Your task to perform on an android device: Do I have any events tomorrow? Image 0: 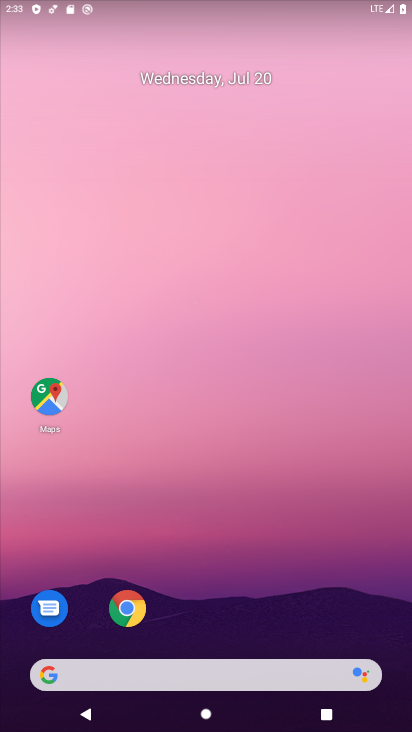
Step 0: drag from (232, 628) to (380, 312)
Your task to perform on an android device: Do I have any events tomorrow? Image 1: 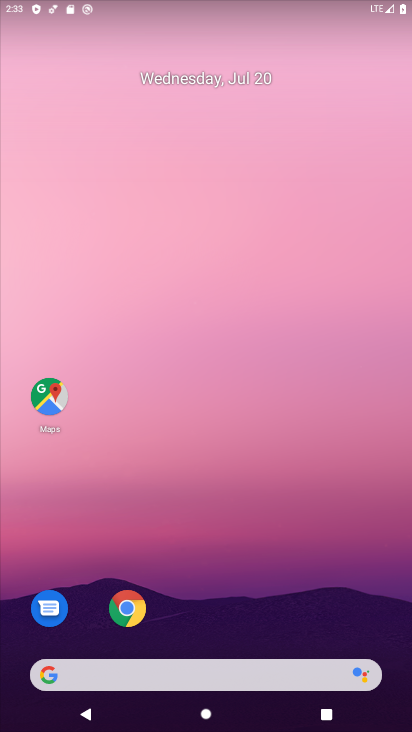
Step 1: drag from (290, 651) to (176, 45)
Your task to perform on an android device: Do I have any events tomorrow? Image 2: 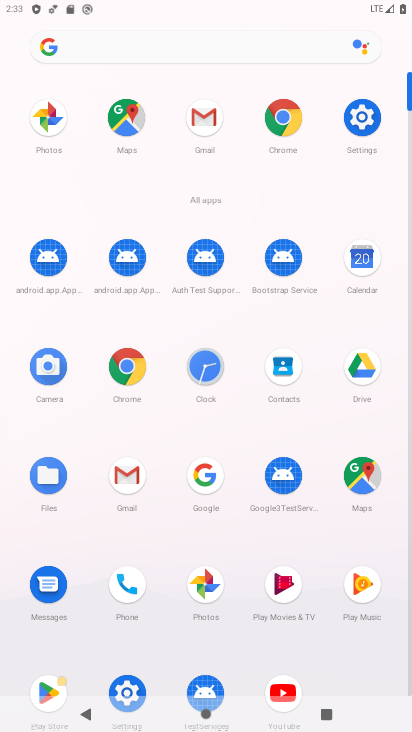
Step 2: click (355, 239)
Your task to perform on an android device: Do I have any events tomorrow? Image 3: 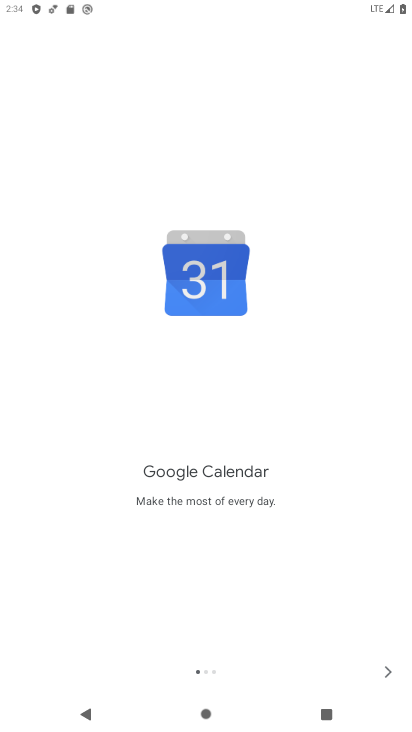
Step 3: click (388, 666)
Your task to perform on an android device: Do I have any events tomorrow? Image 4: 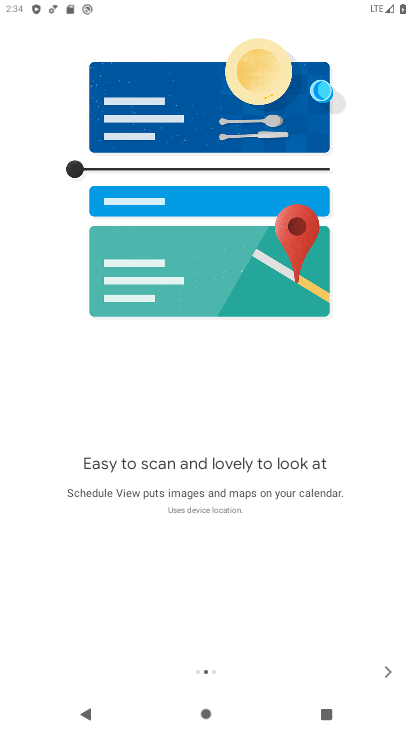
Step 4: click (385, 661)
Your task to perform on an android device: Do I have any events tomorrow? Image 5: 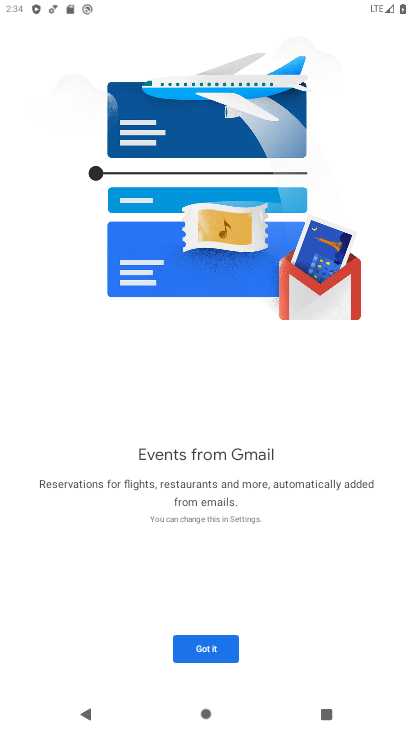
Step 5: click (205, 654)
Your task to perform on an android device: Do I have any events tomorrow? Image 6: 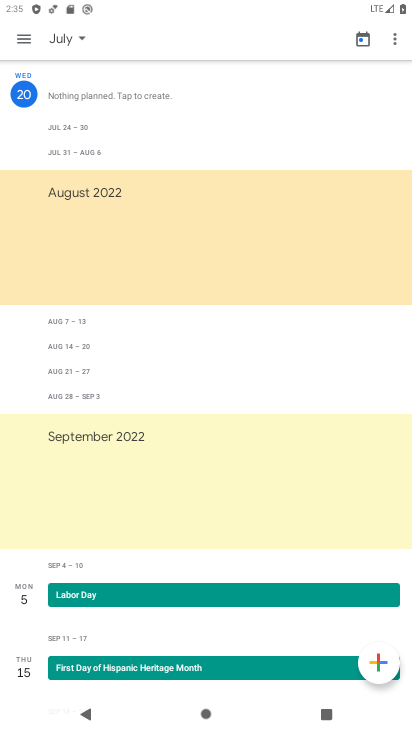
Step 6: click (367, 34)
Your task to perform on an android device: Do I have any events tomorrow? Image 7: 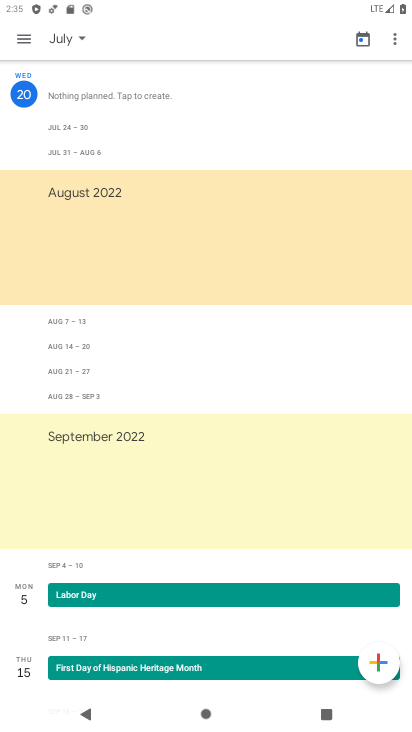
Step 7: click (360, 29)
Your task to perform on an android device: Do I have any events tomorrow? Image 8: 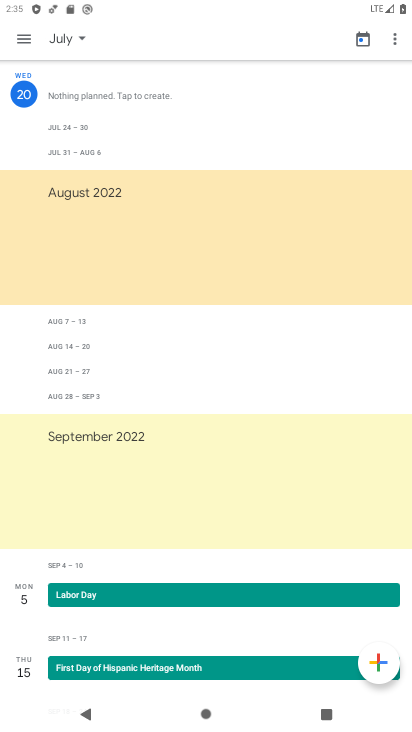
Step 8: click (362, 35)
Your task to perform on an android device: Do I have any events tomorrow? Image 9: 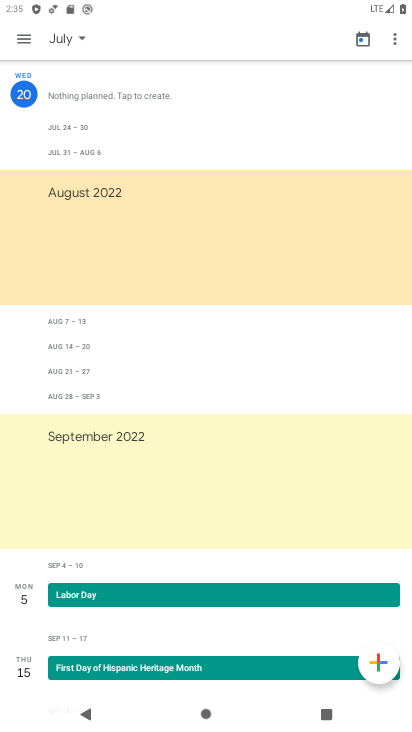
Step 9: click (362, 35)
Your task to perform on an android device: Do I have any events tomorrow? Image 10: 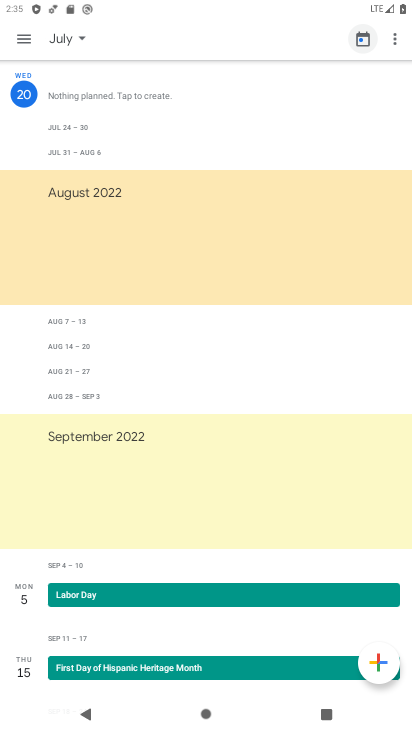
Step 10: click (362, 35)
Your task to perform on an android device: Do I have any events tomorrow? Image 11: 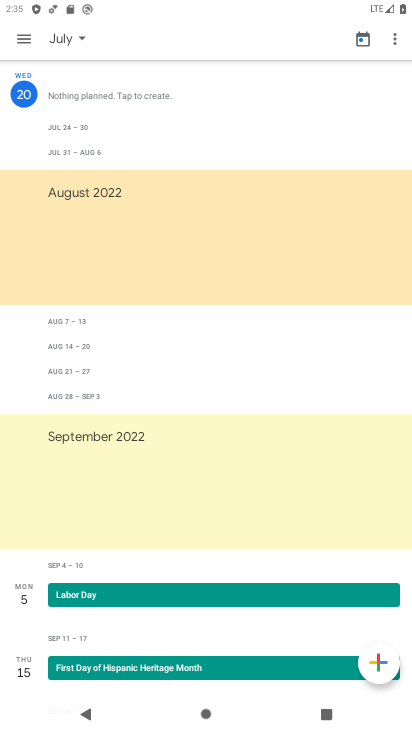
Step 11: click (362, 35)
Your task to perform on an android device: Do I have any events tomorrow? Image 12: 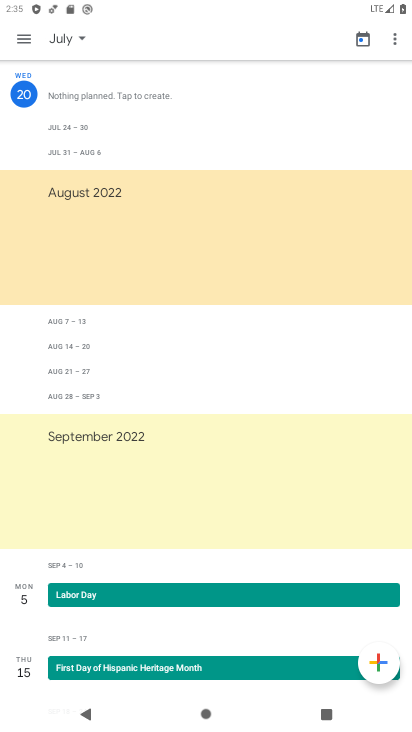
Step 12: click (17, 38)
Your task to perform on an android device: Do I have any events tomorrow? Image 13: 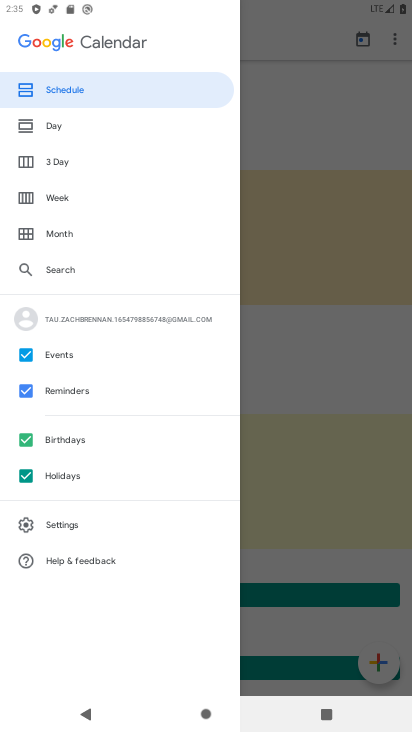
Step 13: click (56, 196)
Your task to perform on an android device: Do I have any events tomorrow? Image 14: 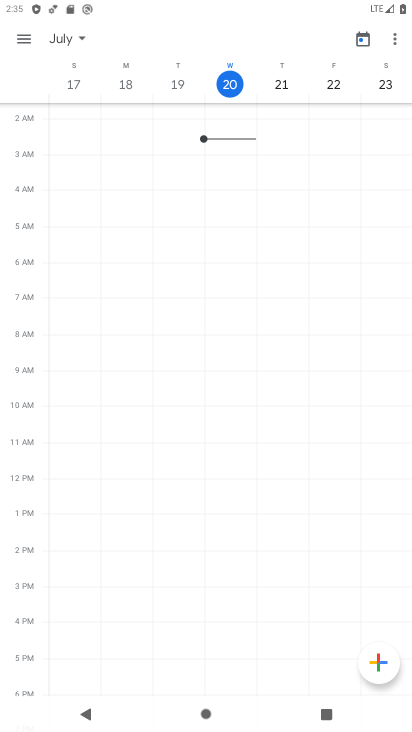
Step 14: click (271, 87)
Your task to perform on an android device: Do I have any events tomorrow? Image 15: 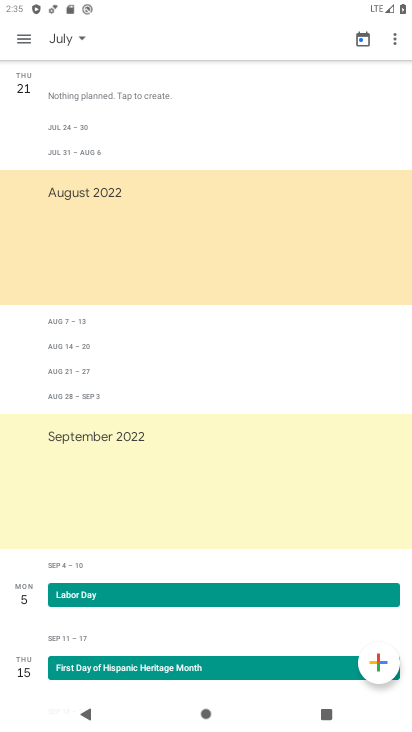
Step 15: task complete